Your task to perform on an android device: What time is it in Paris? Image 0: 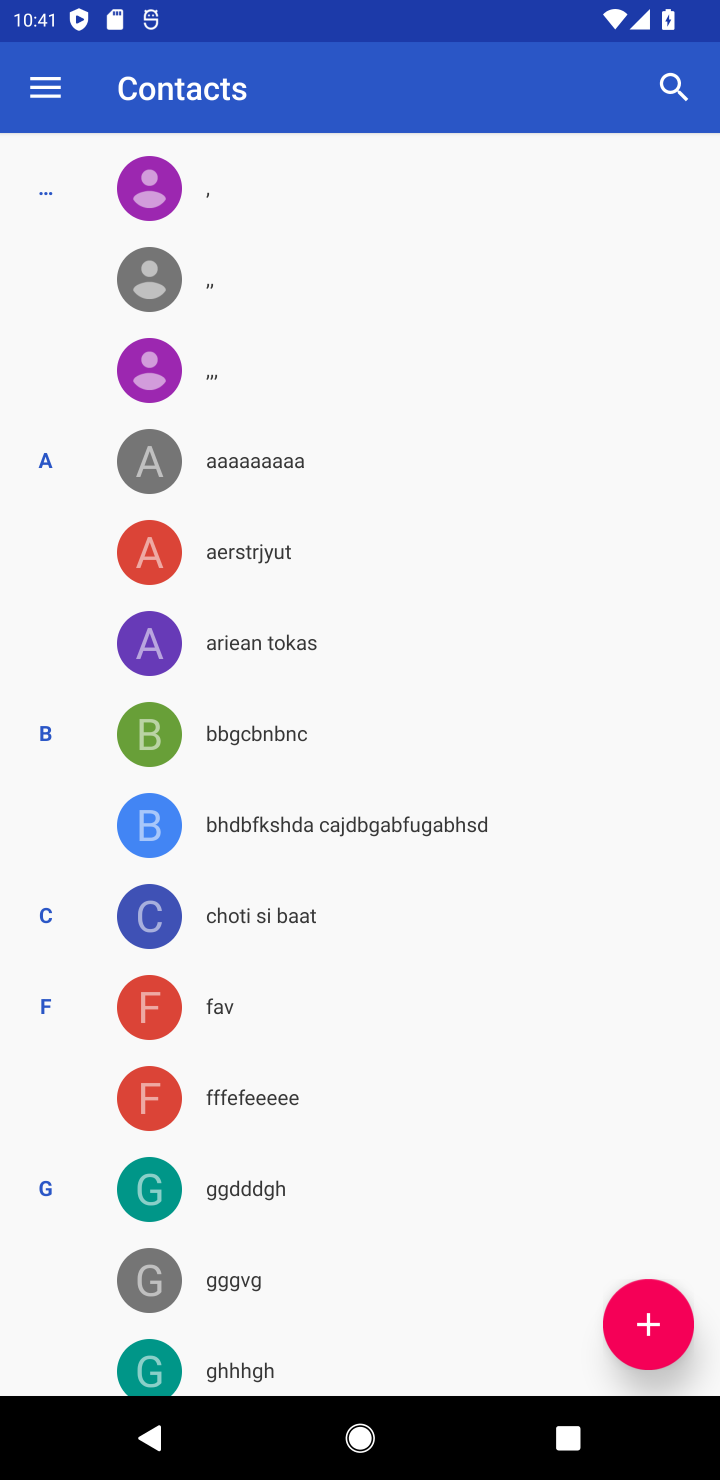
Step 0: press home button
Your task to perform on an android device: What time is it in Paris? Image 1: 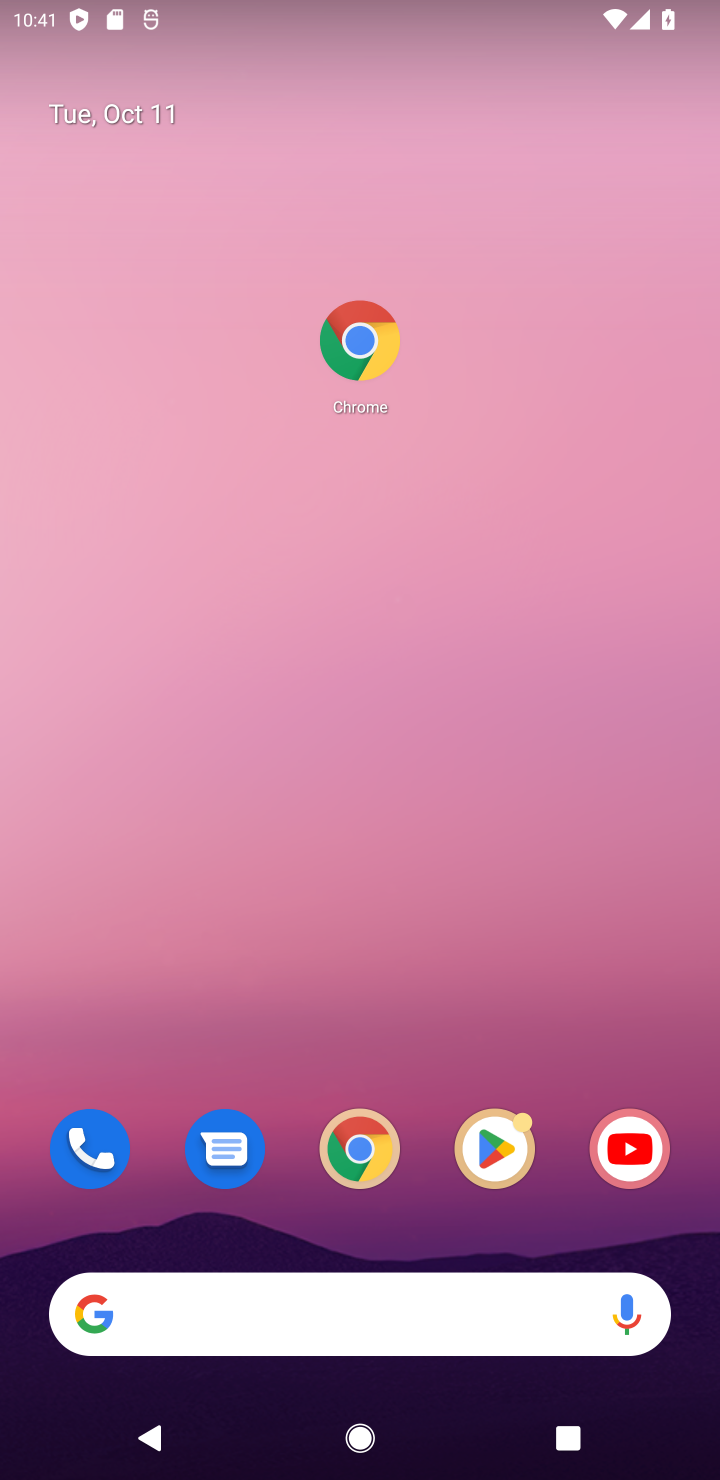
Step 1: drag from (336, 623) to (422, 276)
Your task to perform on an android device: What time is it in Paris? Image 2: 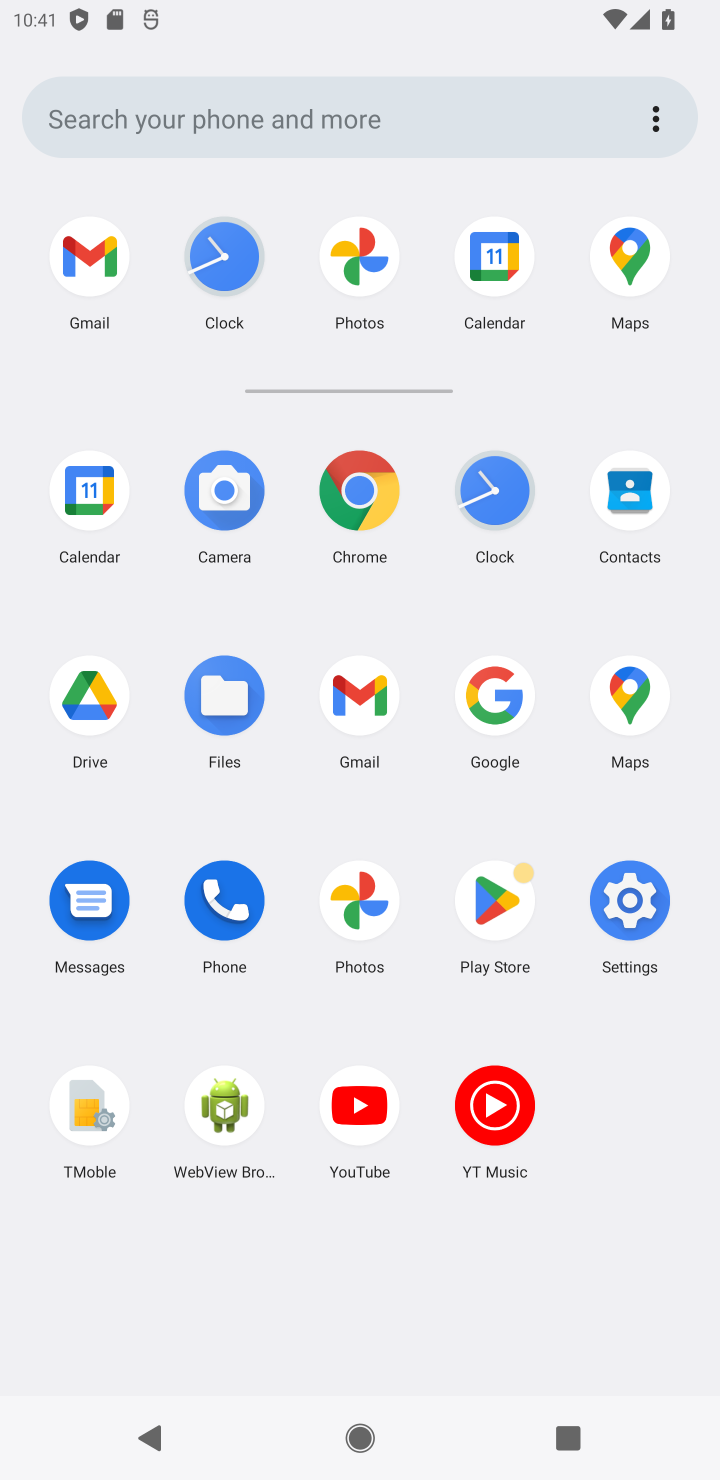
Step 2: click (362, 491)
Your task to perform on an android device: What time is it in Paris? Image 3: 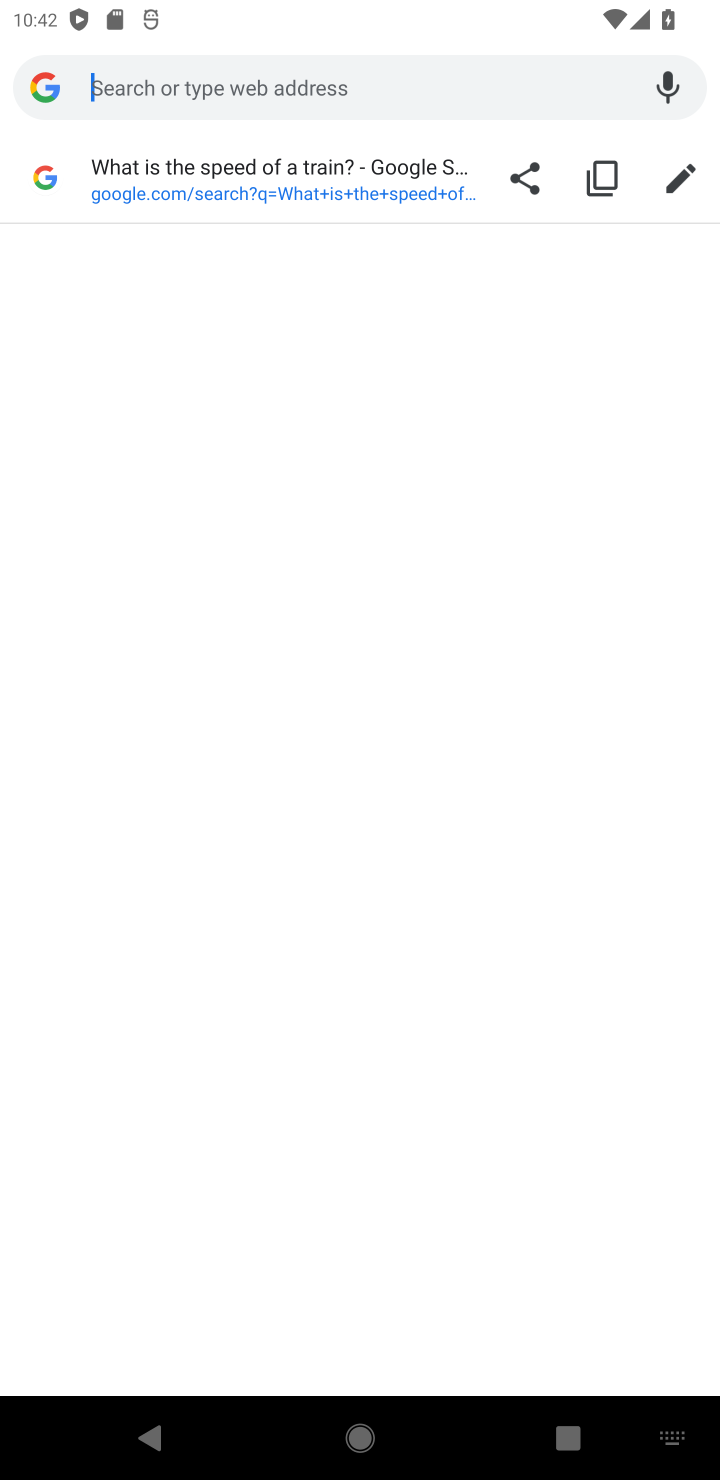
Step 3: type "What time is it in Paris?"
Your task to perform on an android device: What time is it in Paris? Image 4: 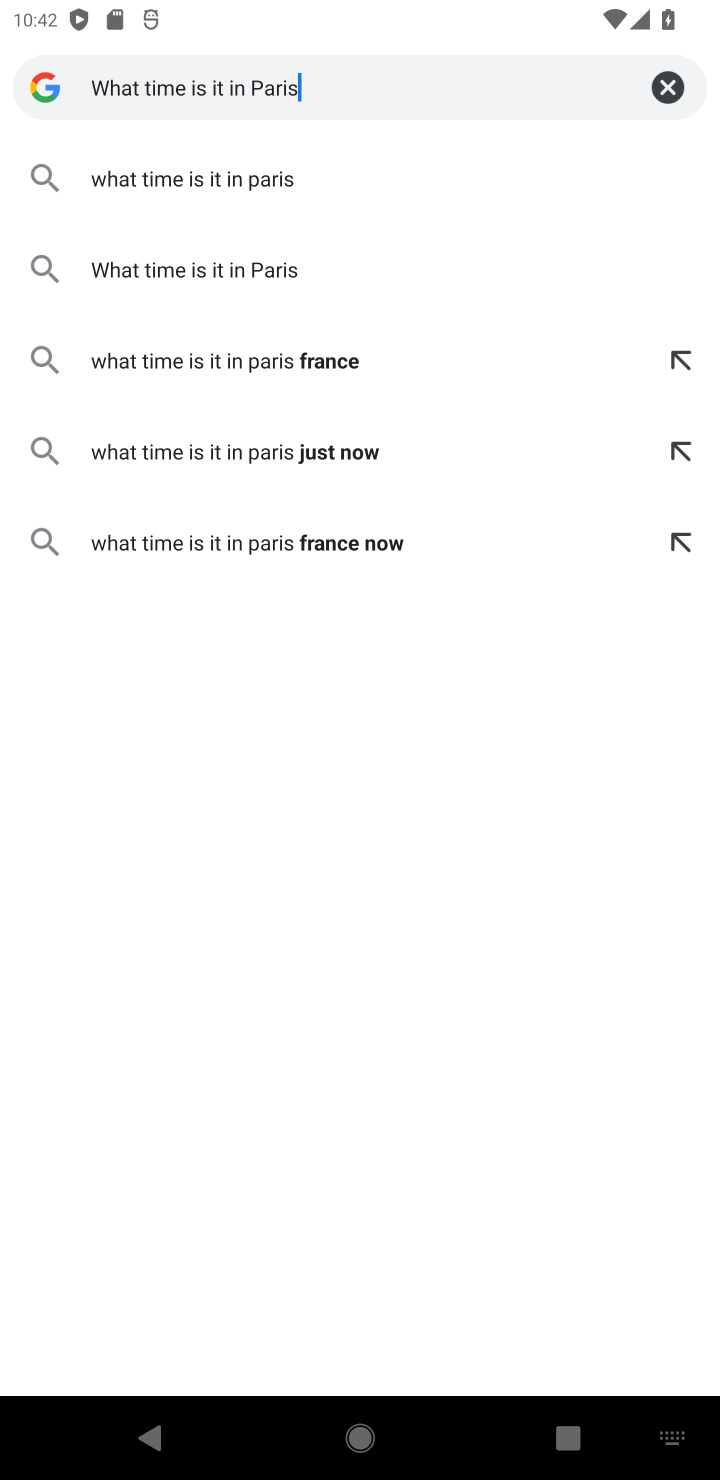
Step 4: press enter
Your task to perform on an android device: What time is it in Paris? Image 5: 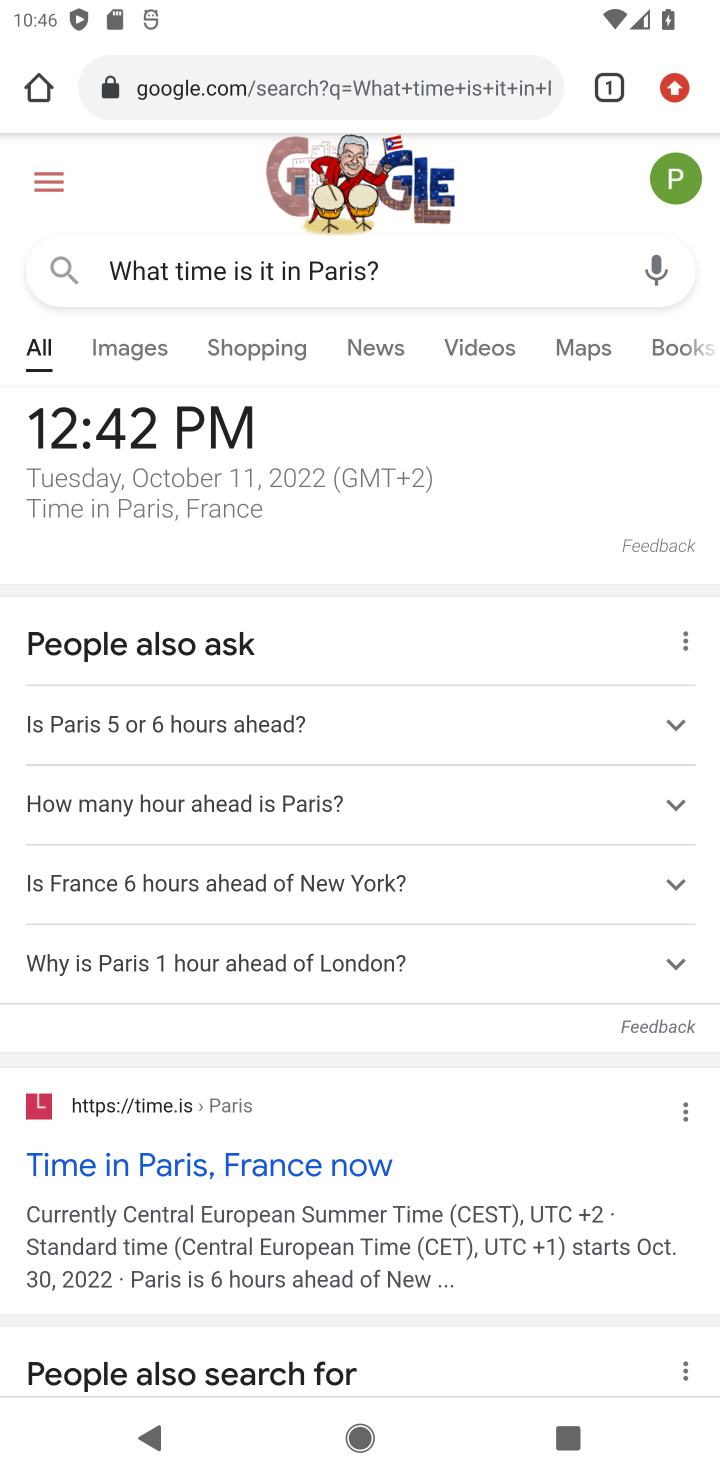
Step 5: task complete